Your task to perform on an android device: See recent photos Image 0: 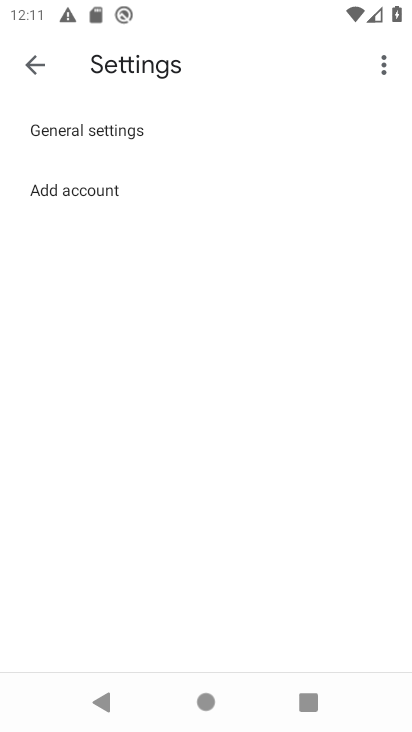
Step 0: press home button
Your task to perform on an android device: See recent photos Image 1: 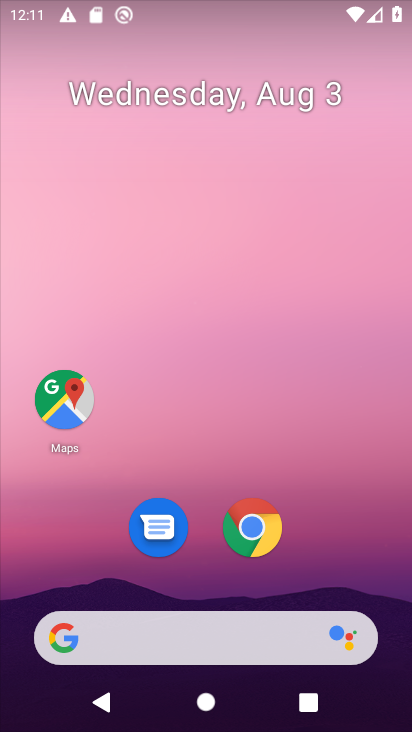
Step 1: drag from (215, 319) to (299, 9)
Your task to perform on an android device: See recent photos Image 2: 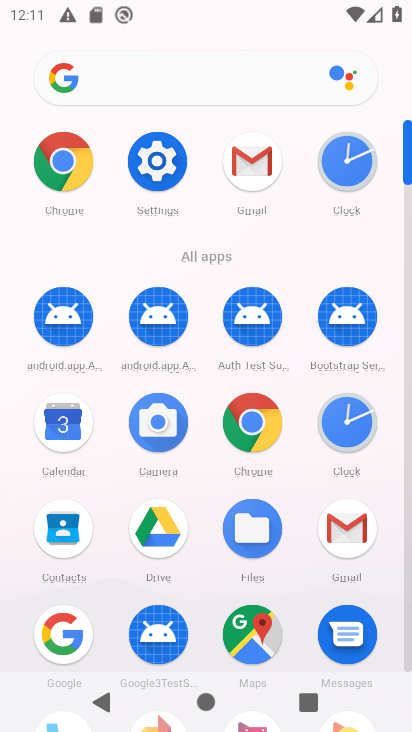
Step 2: drag from (257, 594) to (338, 147)
Your task to perform on an android device: See recent photos Image 3: 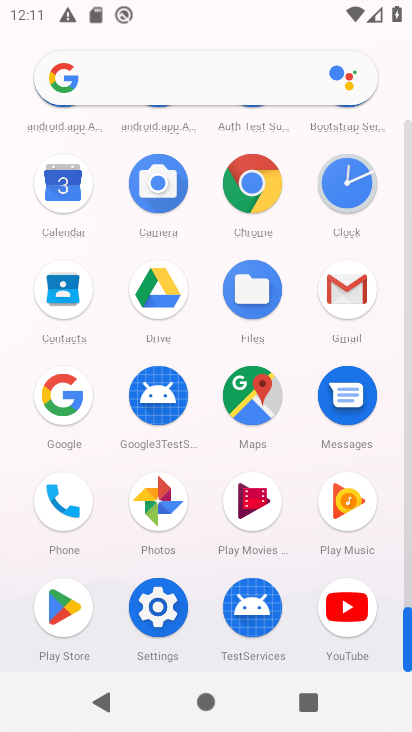
Step 3: click (139, 501)
Your task to perform on an android device: See recent photos Image 4: 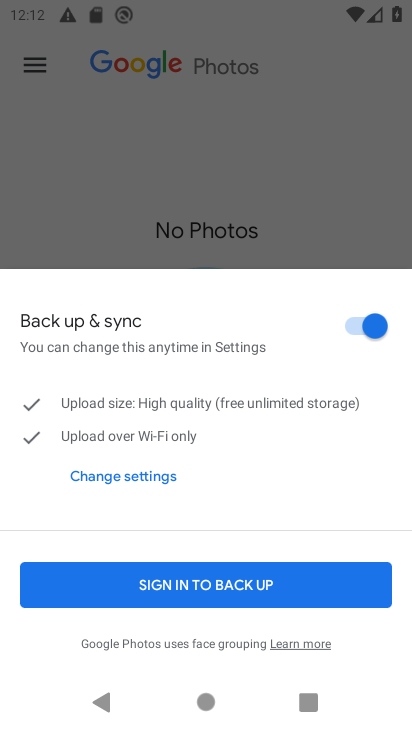
Step 4: click (357, 189)
Your task to perform on an android device: See recent photos Image 5: 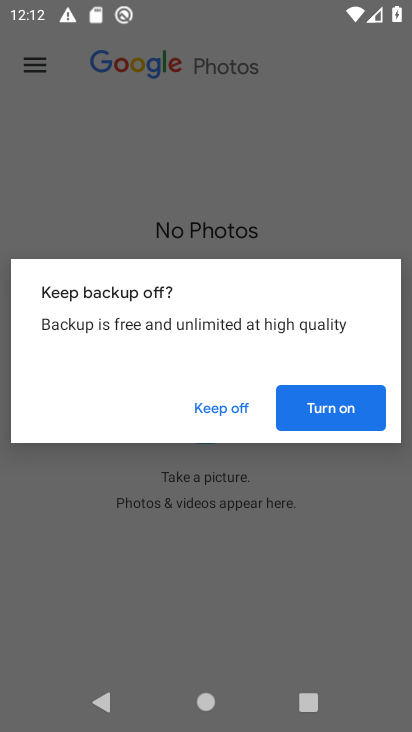
Step 5: click (225, 403)
Your task to perform on an android device: See recent photos Image 6: 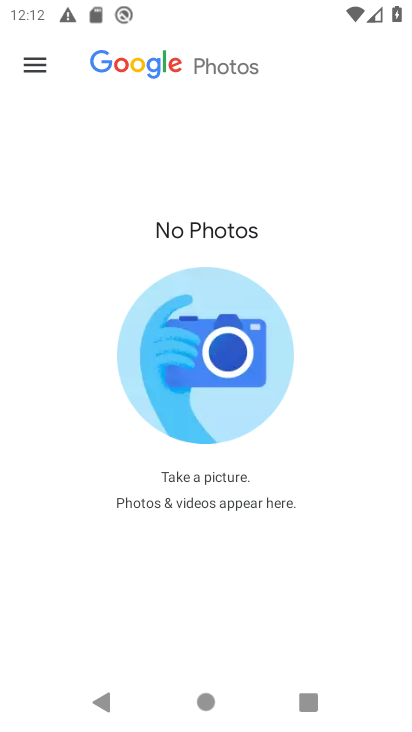
Step 6: task complete